Your task to perform on an android device: turn on priority inbox in the gmail app Image 0: 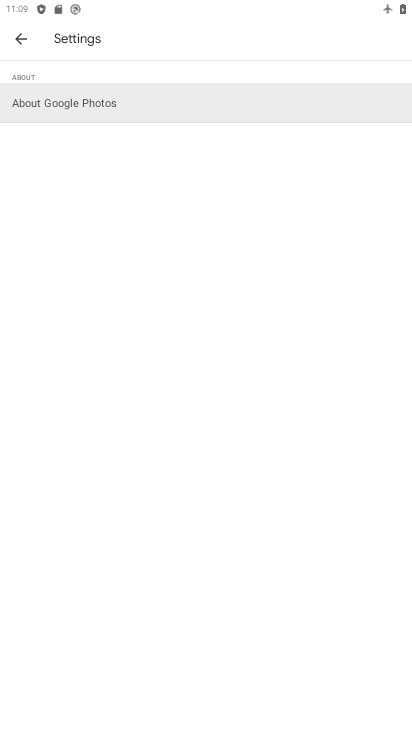
Step 0: press home button
Your task to perform on an android device: turn on priority inbox in the gmail app Image 1: 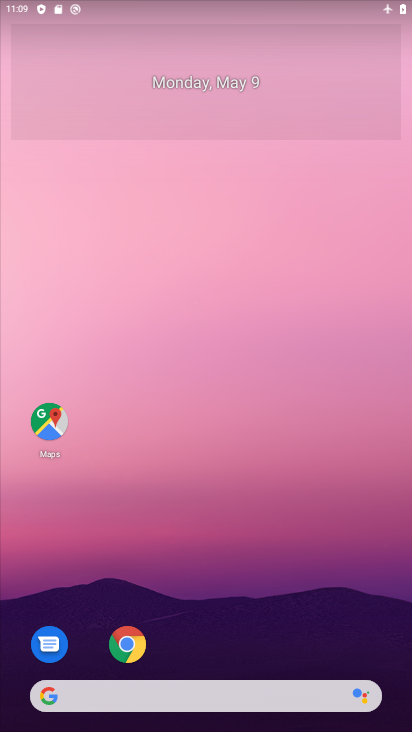
Step 1: drag from (197, 630) to (186, 219)
Your task to perform on an android device: turn on priority inbox in the gmail app Image 2: 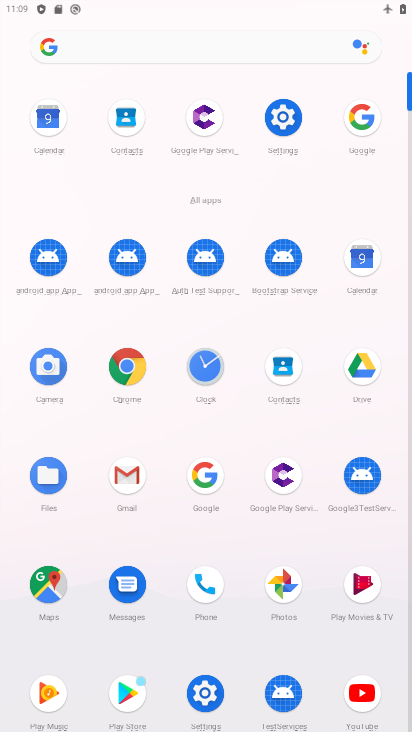
Step 2: click (133, 486)
Your task to perform on an android device: turn on priority inbox in the gmail app Image 3: 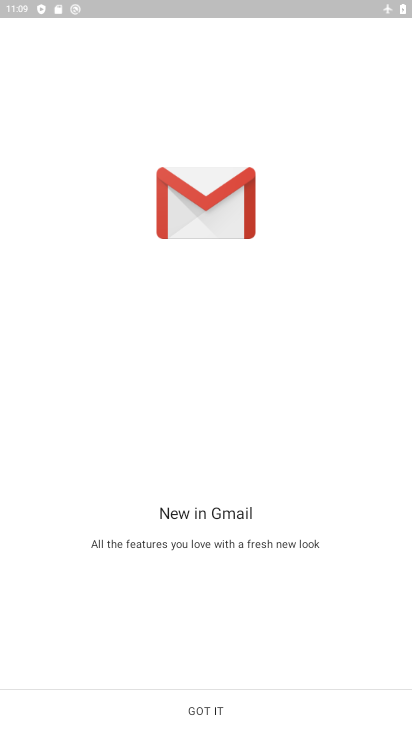
Step 3: click (258, 703)
Your task to perform on an android device: turn on priority inbox in the gmail app Image 4: 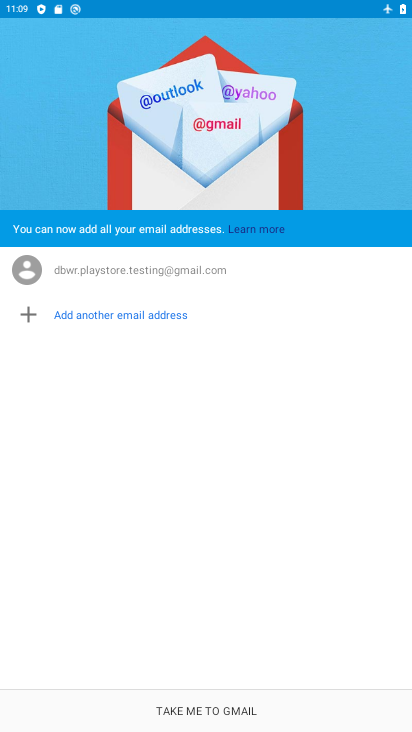
Step 4: click (258, 703)
Your task to perform on an android device: turn on priority inbox in the gmail app Image 5: 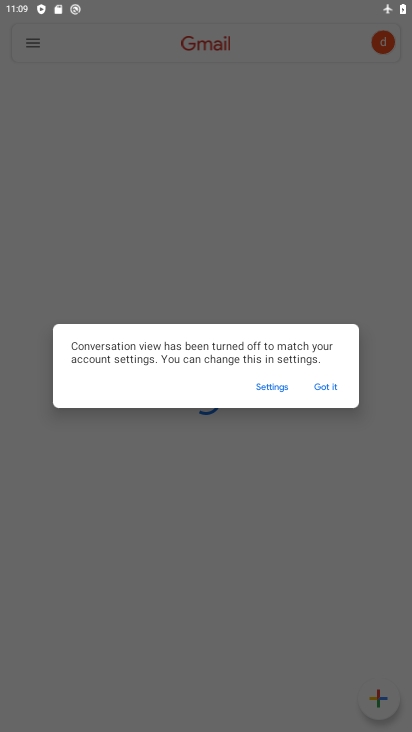
Step 5: click (326, 395)
Your task to perform on an android device: turn on priority inbox in the gmail app Image 6: 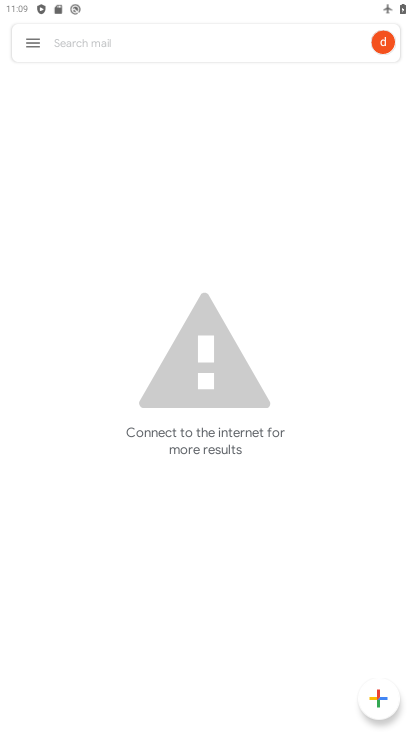
Step 6: click (28, 45)
Your task to perform on an android device: turn on priority inbox in the gmail app Image 7: 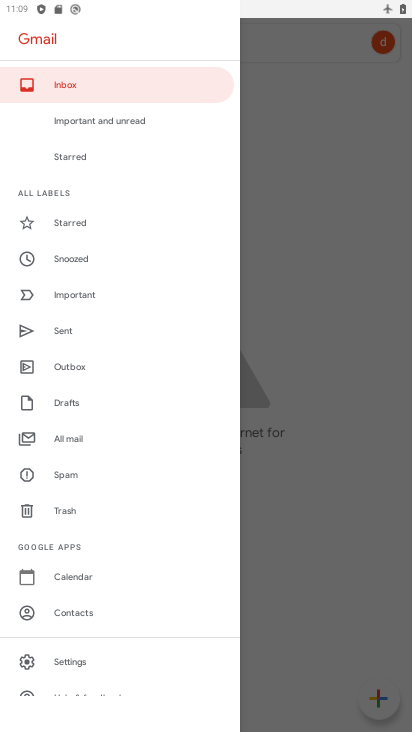
Step 7: click (115, 655)
Your task to perform on an android device: turn on priority inbox in the gmail app Image 8: 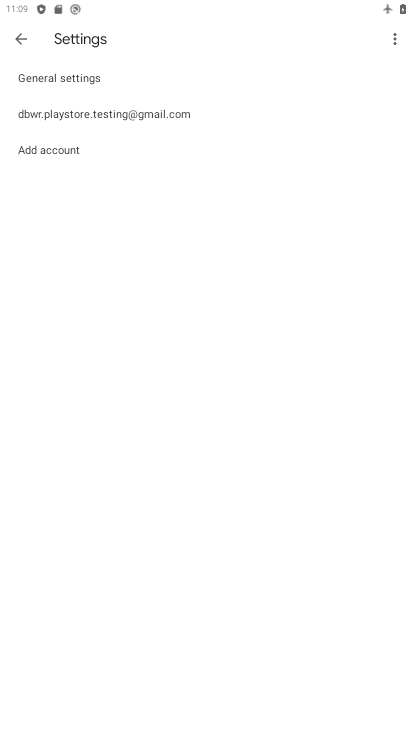
Step 8: click (93, 109)
Your task to perform on an android device: turn on priority inbox in the gmail app Image 9: 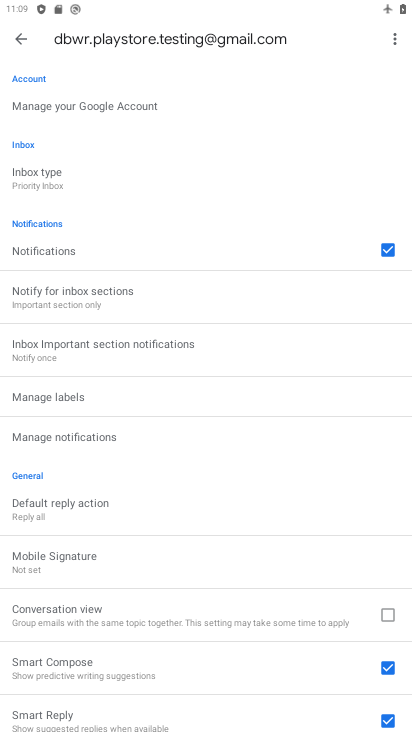
Step 9: click (56, 169)
Your task to perform on an android device: turn on priority inbox in the gmail app Image 10: 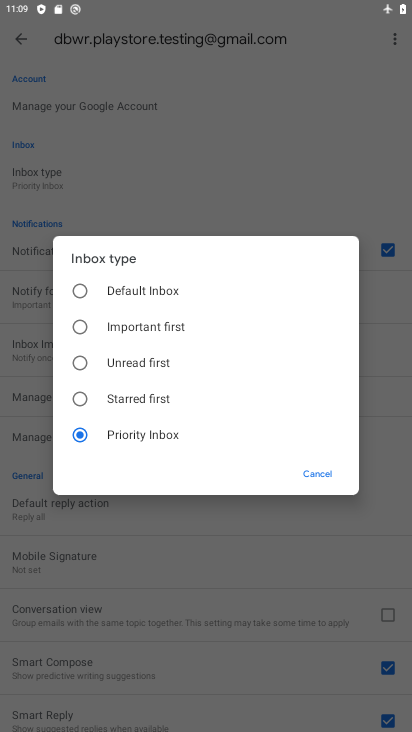
Step 10: task complete